Your task to perform on an android device: What's on my calendar today? Image 0: 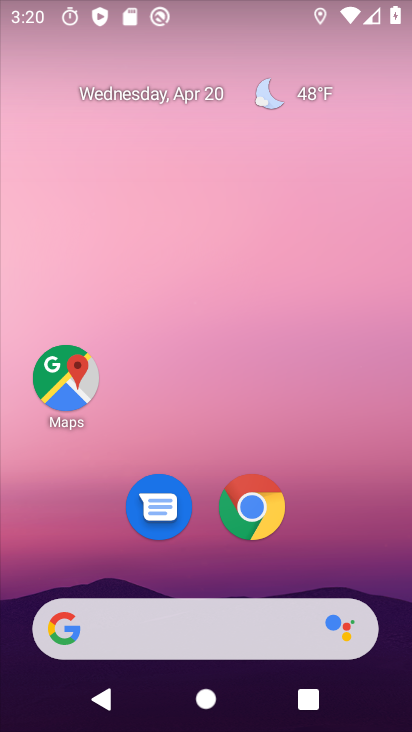
Step 0: drag from (256, 603) to (225, 169)
Your task to perform on an android device: What's on my calendar today? Image 1: 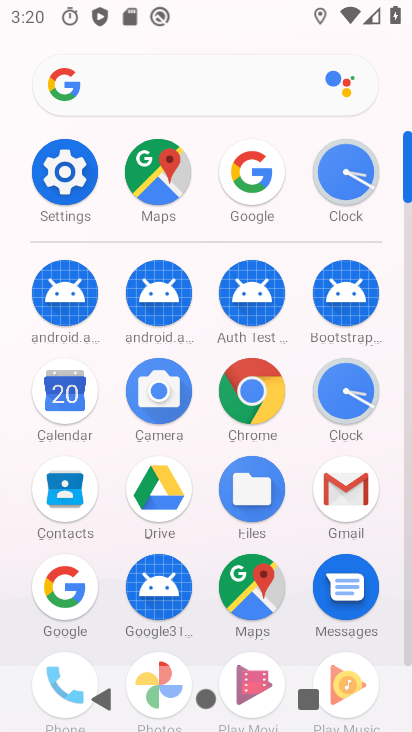
Step 1: click (67, 410)
Your task to perform on an android device: What's on my calendar today? Image 2: 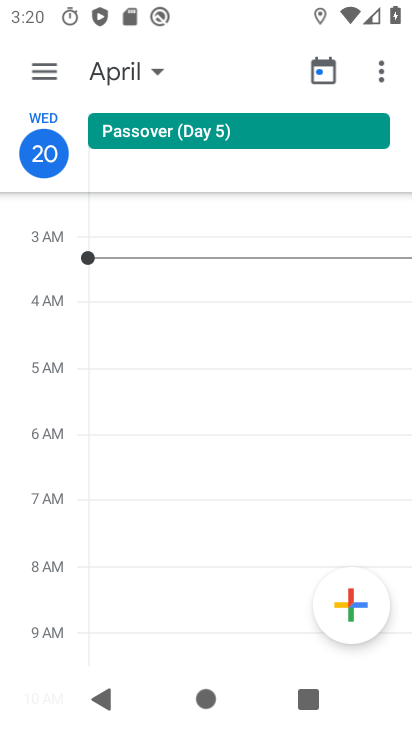
Step 2: task complete